Your task to perform on an android device: Turn off the flashlight Image 0: 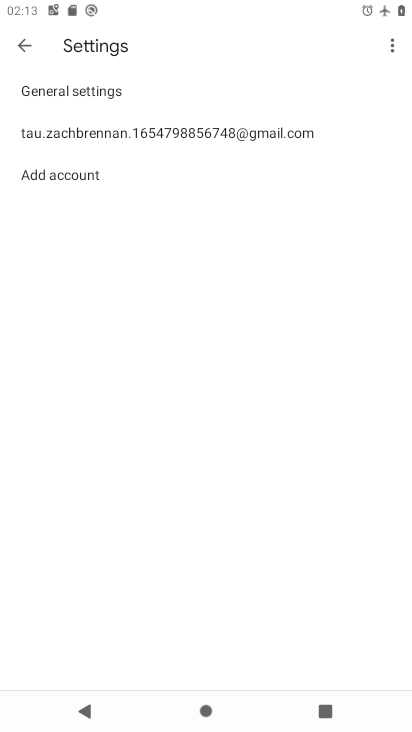
Step 0: press home button
Your task to perform on an android device: Turn off the flashlight Image 1: 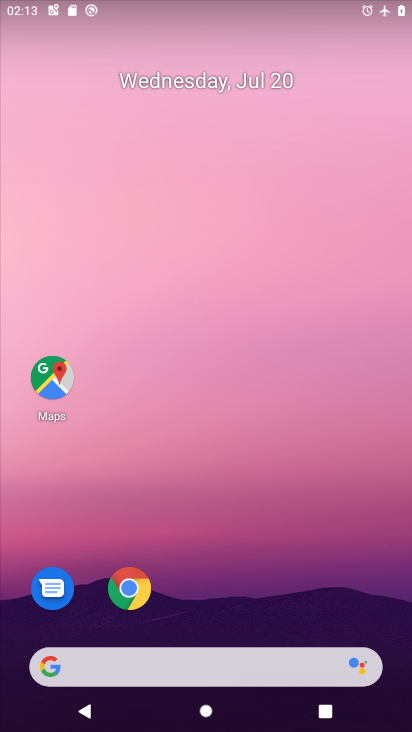
Step 1: drag from (290, 639) to (266, 169)
Your task to perform on an android device: Turn off the flashlight Image 2: 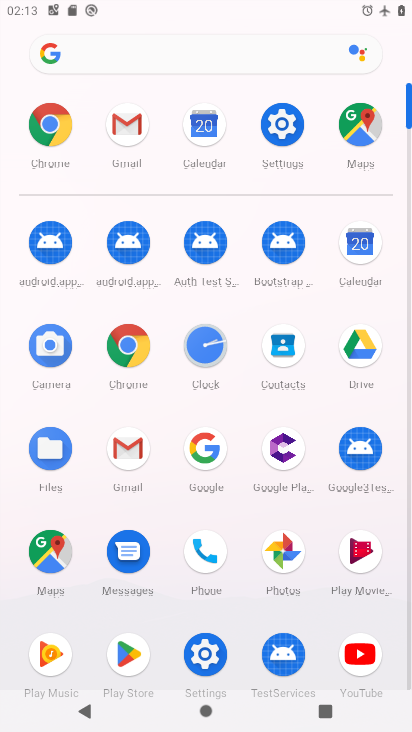
Step 2: click (293, 122)
Your task to perform on an android device: Turn off the flashlight Image 3: 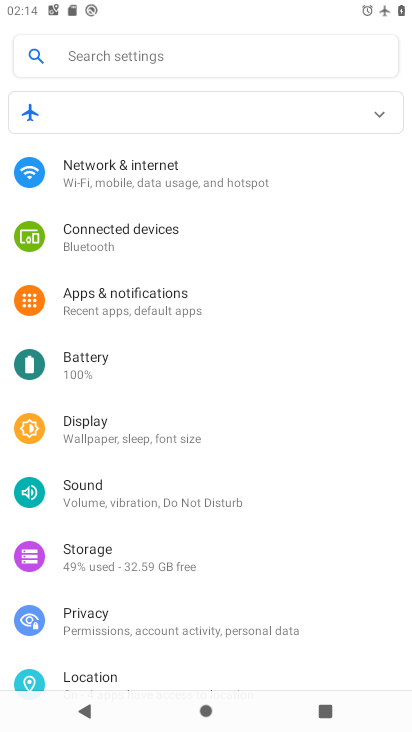
Step 3: task complete